Your task to perform on an android device: manage bookmarks in the chrome app Image 0: 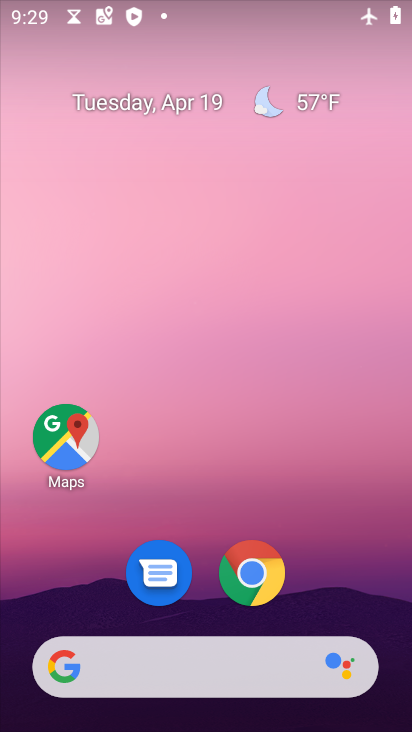
Step 0: click (256, 559)
Your task to perform on an android device: manage bookmarks in the chrome app Image 1: 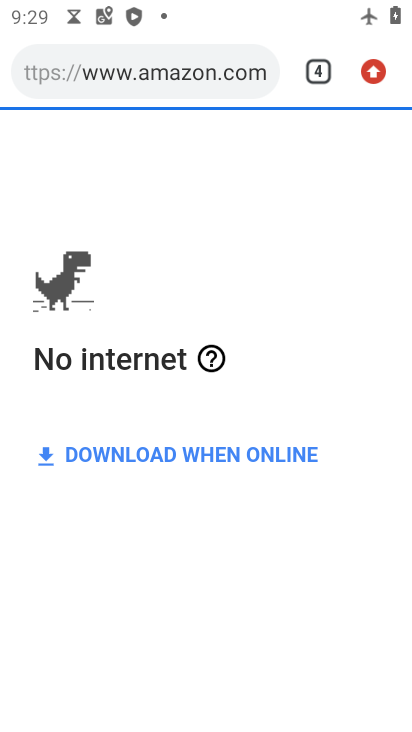
Step 1: click (370, 74)
Your task to perform on an android device: manage bookmarks in the chrome app Image 2: 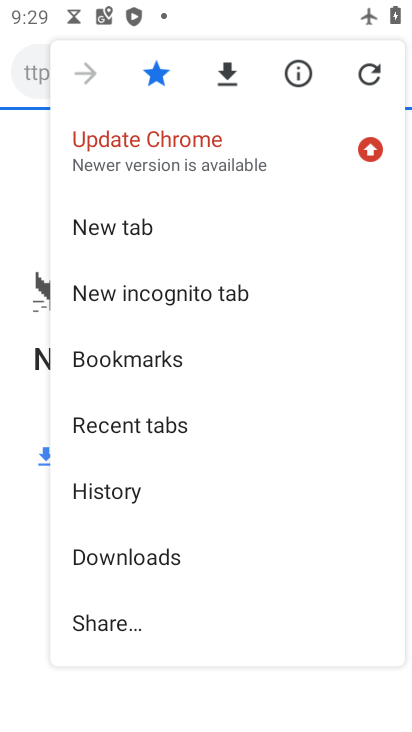
Step 2: click (171, 356)
Your task to perform on an android device: manage bookmarks in the chrome app Image 3: 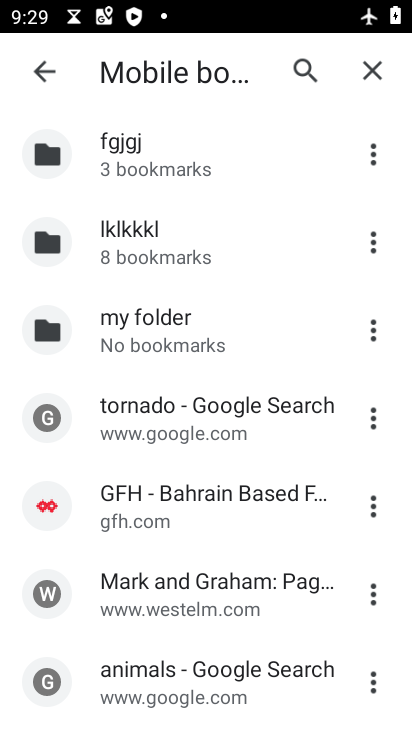
Step 3: click (374, 417)
Your task to perform on an android device: manage bookmarks in the chrome app Image 4: 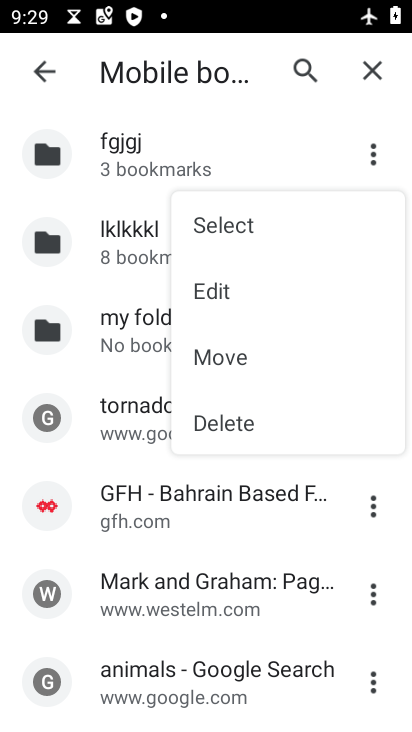
Step 4: click (267, 228)
Your task to perform on an android device: manage bookmarks in the chrome app Image 5: 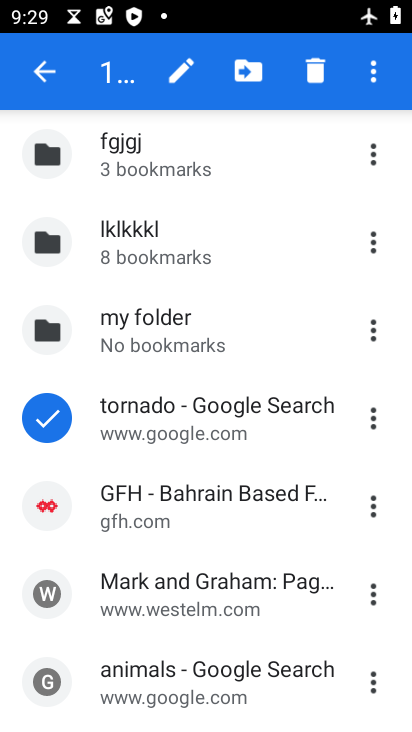
Step 5: click (49, 580)
Your task to perform on an android device: manage bookmarks in the chrome app Image 6: 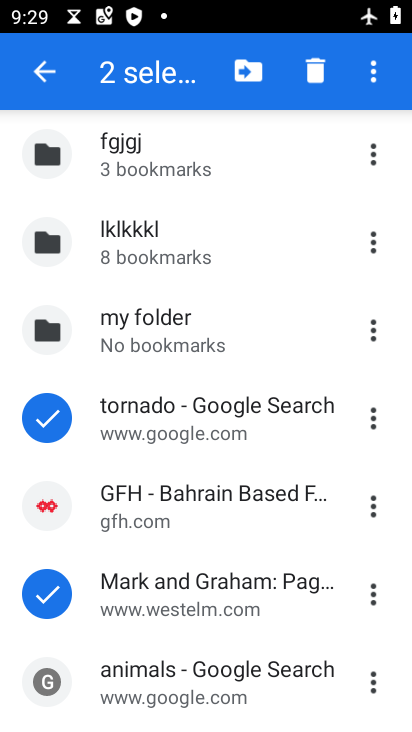
Step 6: click (47, 681)
Your task to perform on an android device: manage bookmarks in the chrome app Image 7: 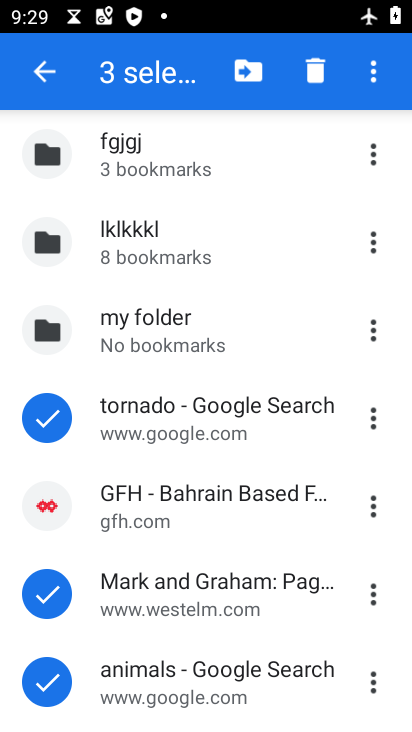
Step 7: click (316, 77)
Your task to perform on an android device: manage bookmarks in the chrome app Image 8: 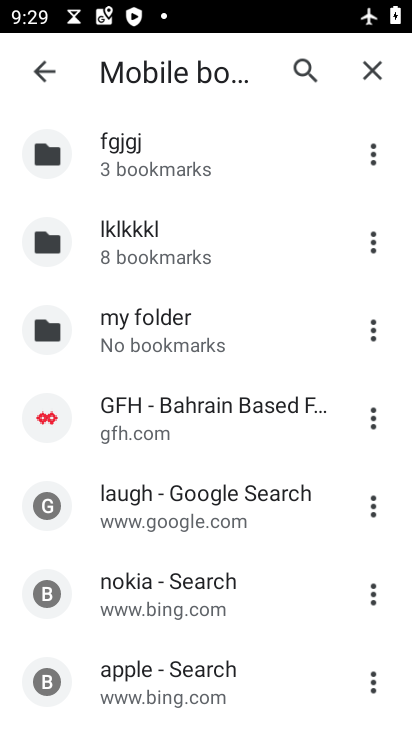
Step 8: task complete